Your task to perform on an android device: open app "Reddit" (install if not already installed) and go to login screen Image 0: 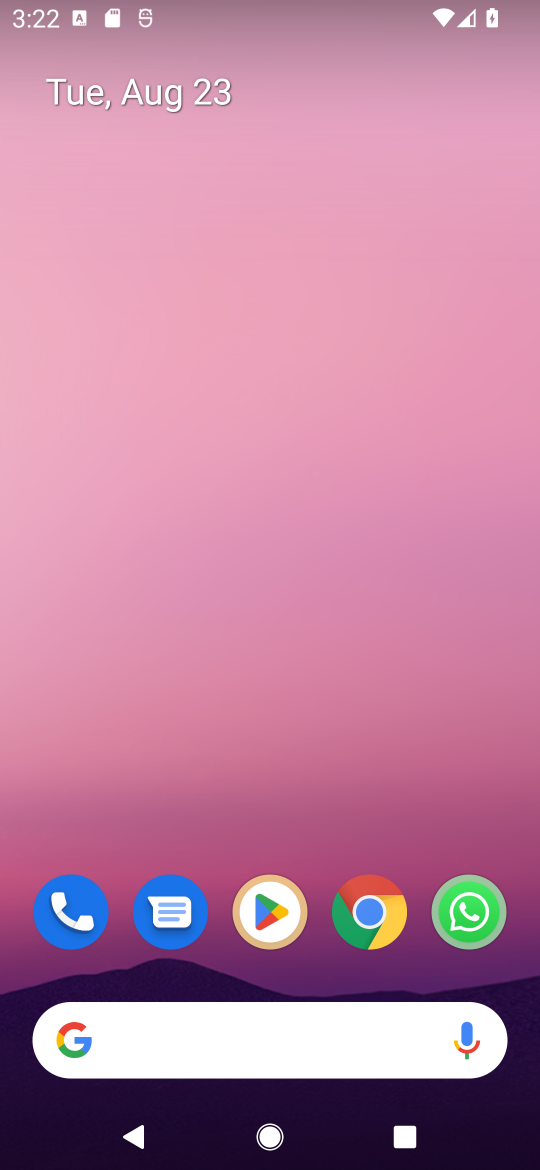
Step 0: drag from (222, 1022) to (276, 212)
Your task to perform on an android device: open app "Reddit" (install if not already installed) and go to login screen Image 1: 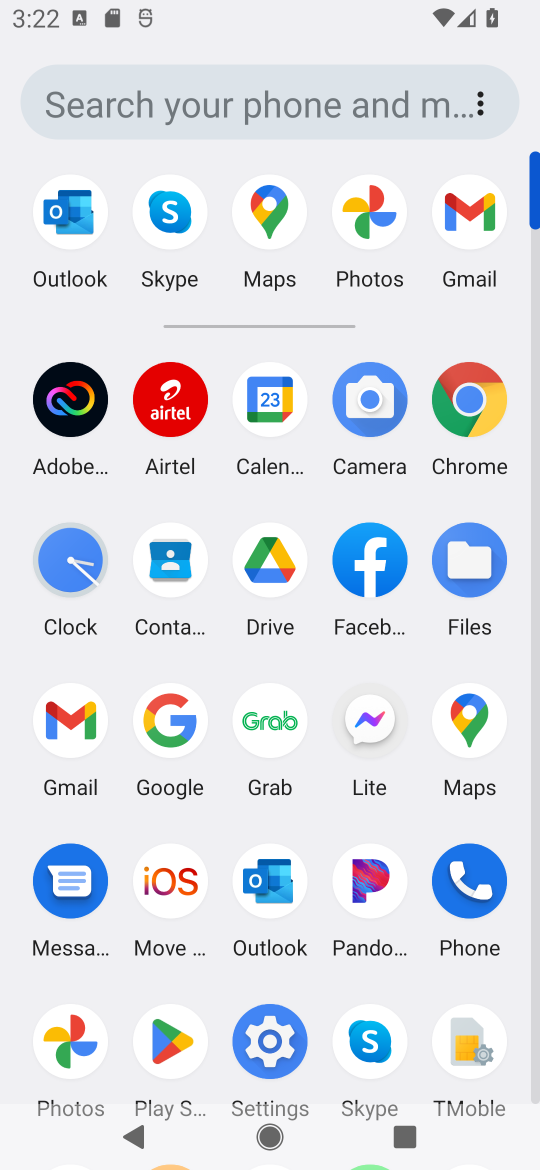
Step 1: click (172, 1044)
Your task to perform on an android device: open app "Reddit" (install if not already installed) and go to login screen Image 2: 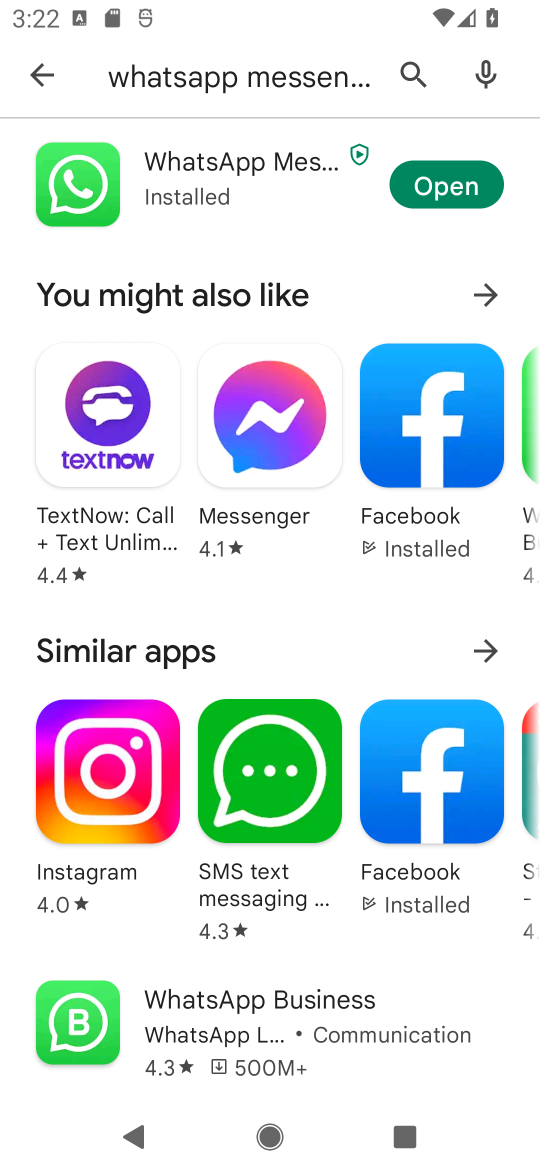
Step 2: press back button
Your task to perform on an android device: open app "Reddit" (install if not already installed) and go to login screen Image 3: 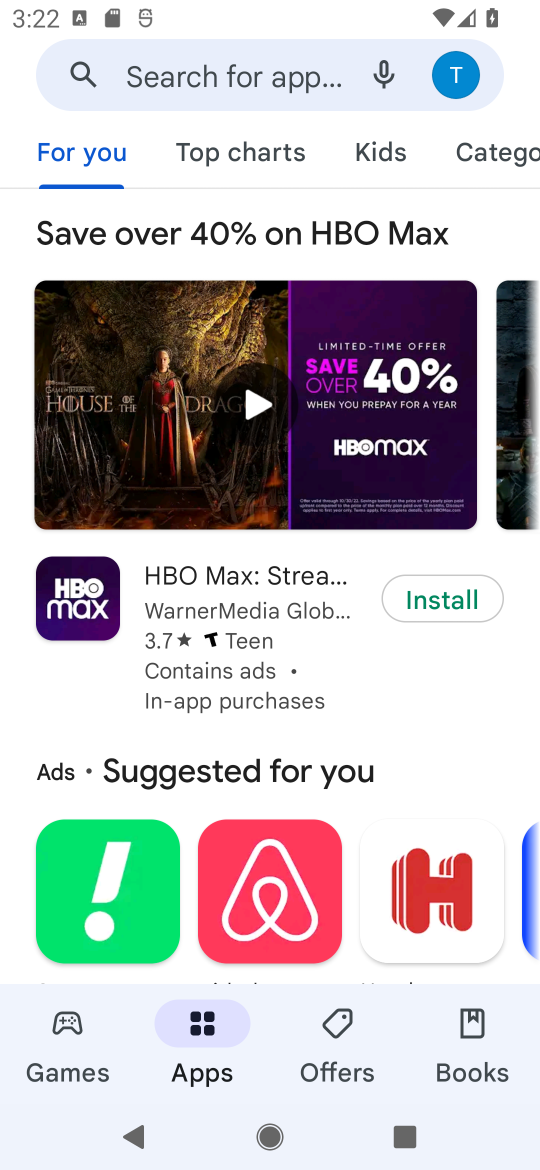
Step 3: click (252, 62)
Your task to perform on an android device: open app "Reddit" (install if not already installed) and go to login screen Image 4: 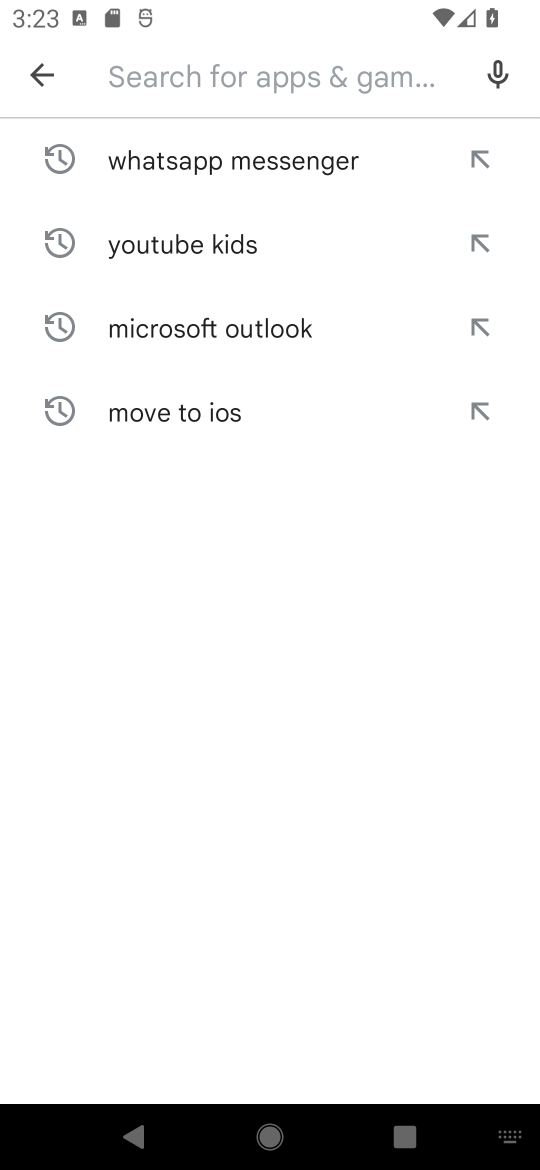
Step 4: type "Reddit"
Your task to perform on an android device: open app "Reddit" (install if not already installed) and go to login screen Image 5: 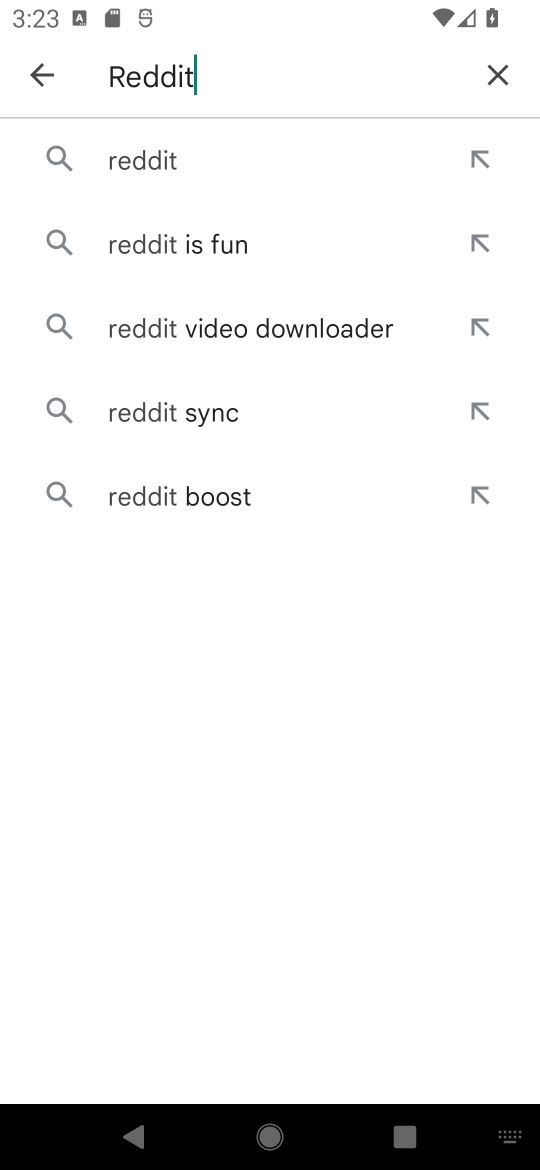
Step 5: click (163, 162)
Your task to perform on an android device: open app "Reddit" (install if not already installed) and go to login screen Image 6: 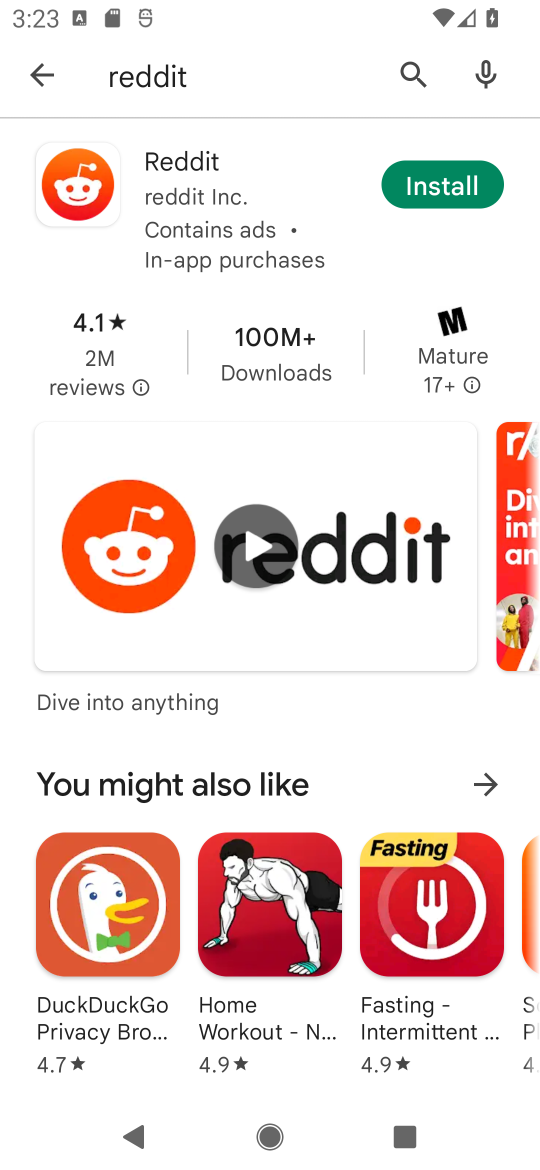
Step 6: click (439, 176)
Your task to perform on an android device: open app "Reddit" (install if not already installed) and go to login screen Image 7: 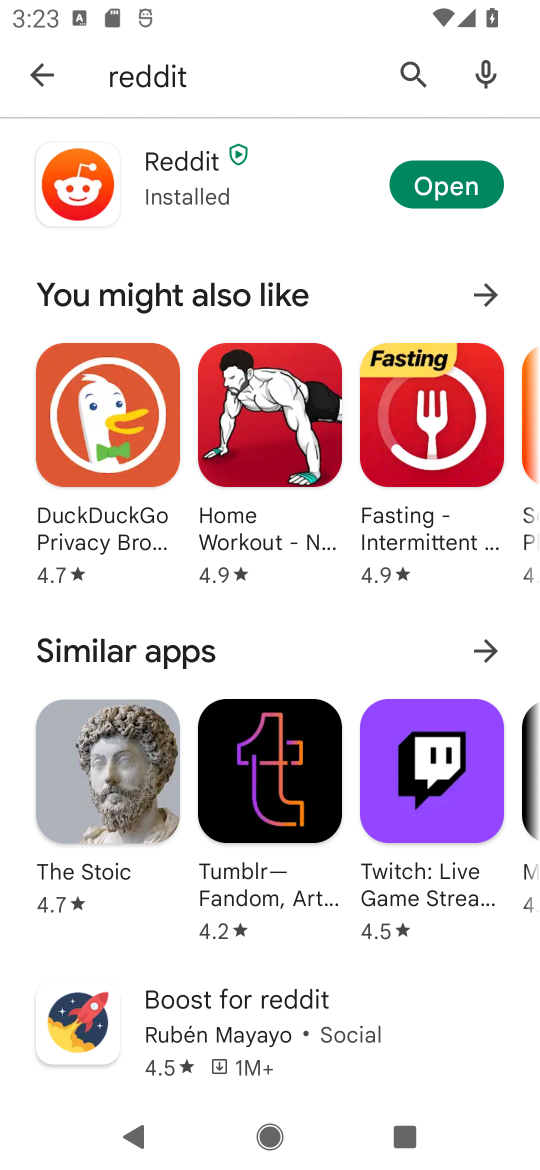
Step 7: click (437, 187)
Your task to perform on an android device: open app "Reddit" (install if not already installed) and go to login screen Image 8: 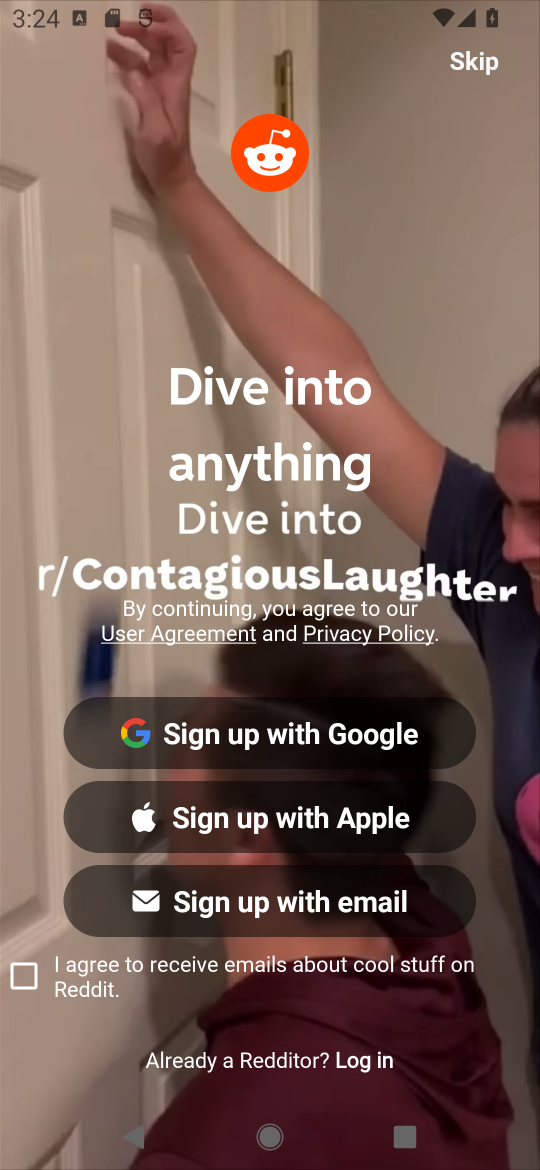
Step 8: click (355, 1066)
Your task to perform on an android device: open app "Reddit" (install if not already installed) and go to login screen Image 9: 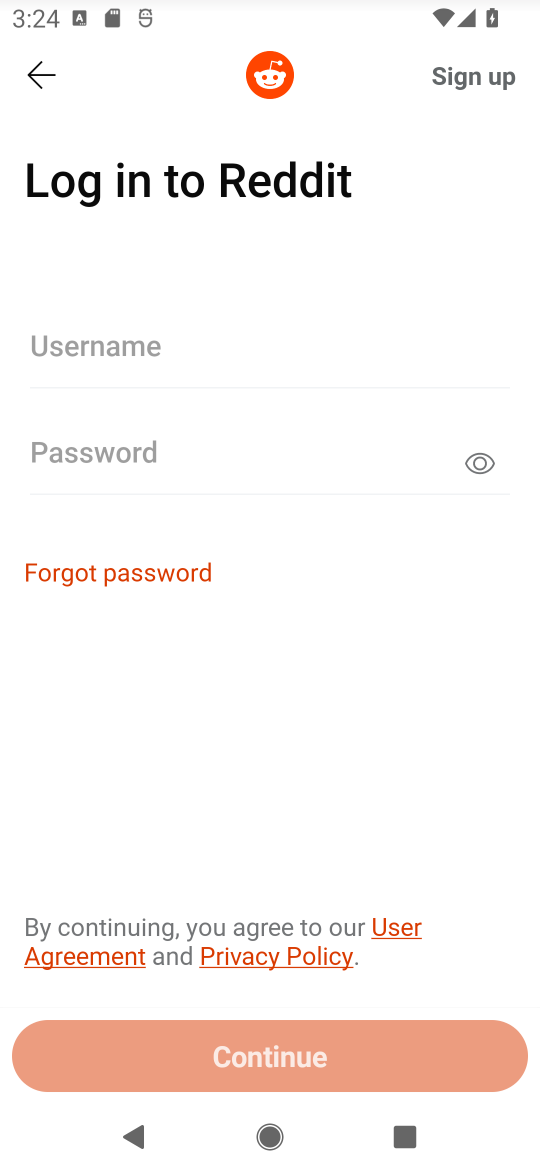
Step 9: task complete